Your task to perform on an android device: Go to battery settings Image 0: 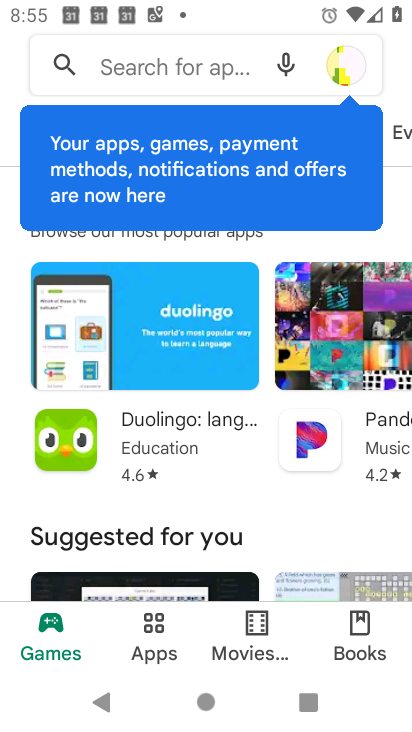
Step 0: press home button
Your task to perform on an android device: Go to battery settings Image 1: 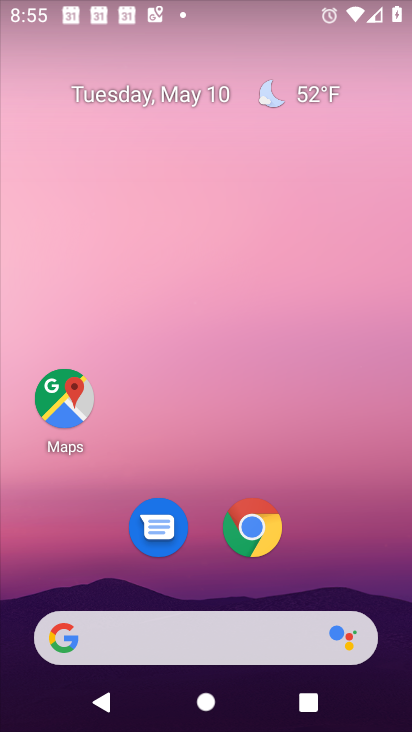
Step 1: drag from (310, 572) to (98, 158)
Your task to perform on an android device: Go to battery settings Image 2: 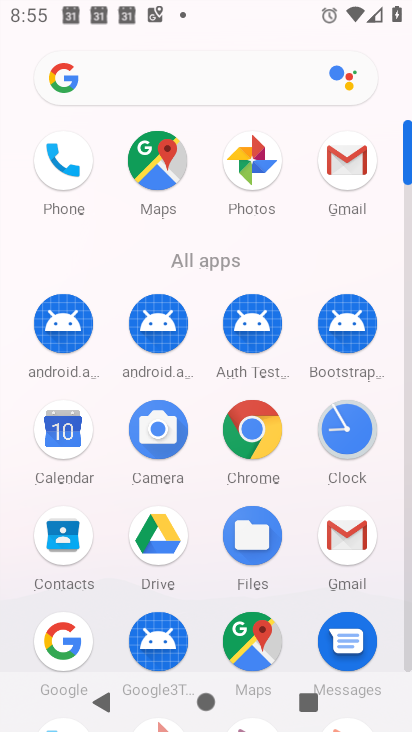
Step 2: drag from (209, 599) to (202, 262)
Your task to perform on an android device: Go to battery settings Image 3: 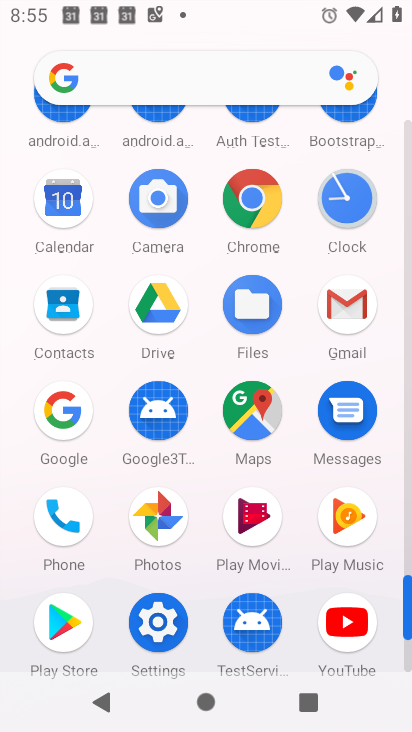
Step 3: click (164, 635)
Your task to perform on an android device: Go to battery settings Image 4: 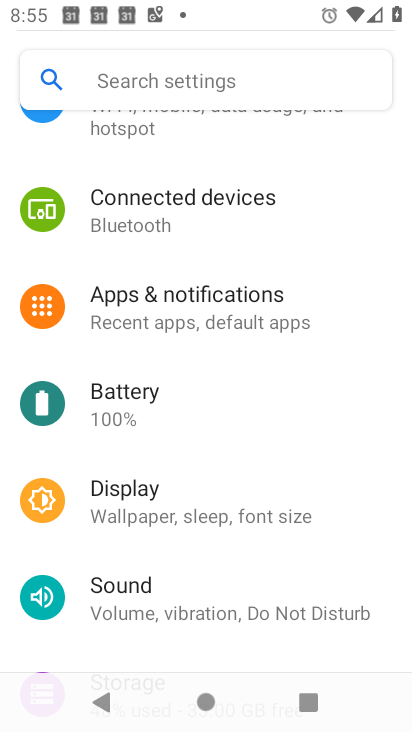
Step 4: click (112, 415)
Your task to perform on an android device: Go to battery settings Image 5: 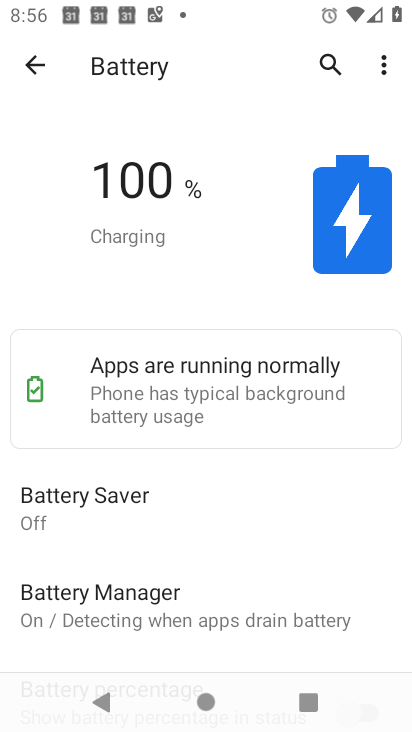
Step 5: task complete